Your task to perform on an android device: change notifications settings Image 0: 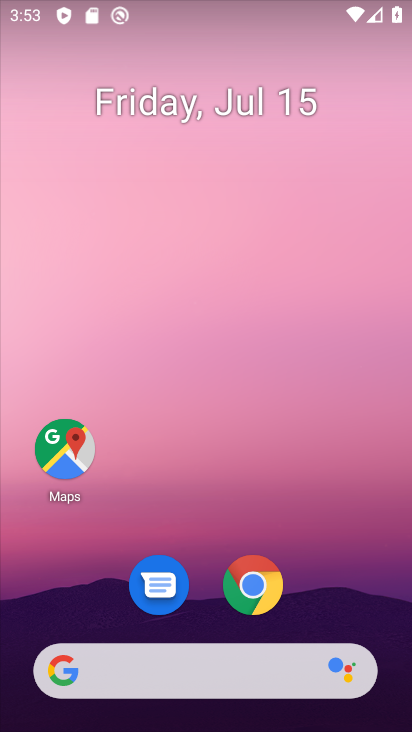
Step 0: drag from (298, 538) to (279, 11)
Your task to perform on an android device: change notifications settings Image 1: 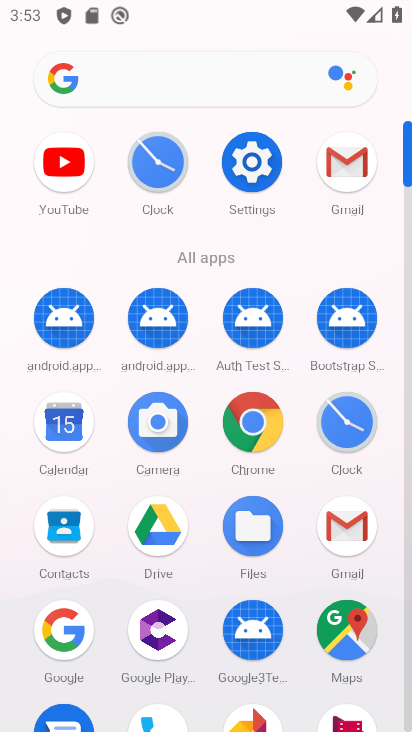
Step 1: click (248, 166)
Your task to perform on an android device: change notifications settings Image 2: 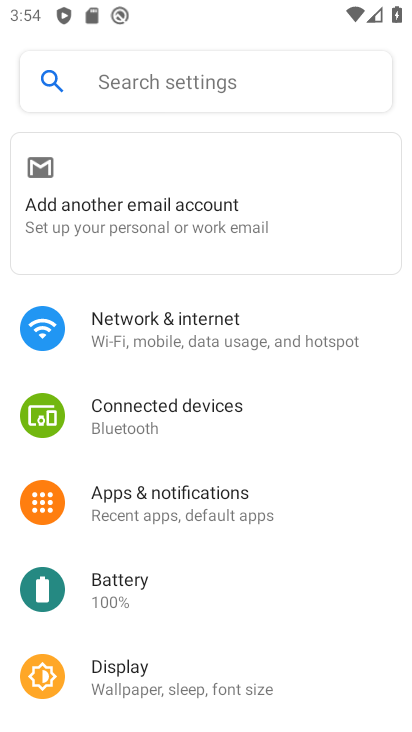
Step 2: click (229, 332)
Your task to perform on an android device: change notifications settings Image 3: 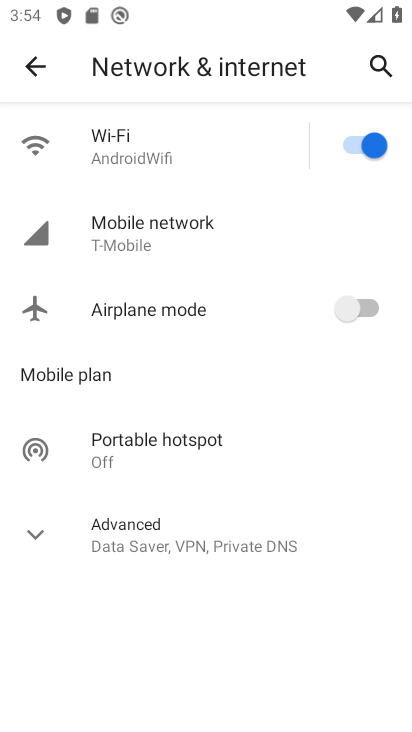
Step 3: click (38, 67)
Your task to perform on an android device: change notifications settings Image 4: 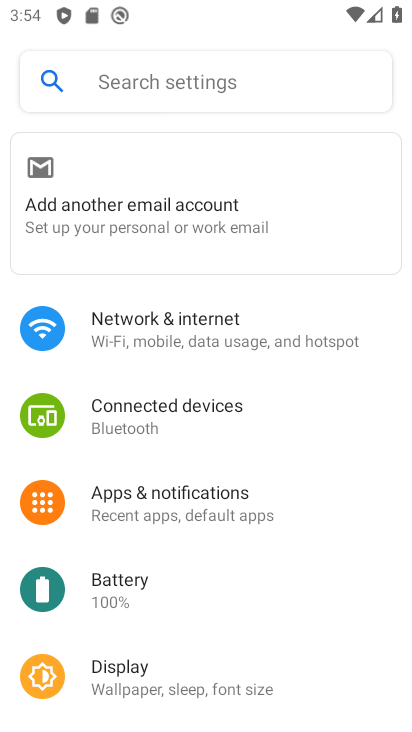
Step 4: click (195, 506)
Your task to perform on an android device: change notifications settings Image 5: 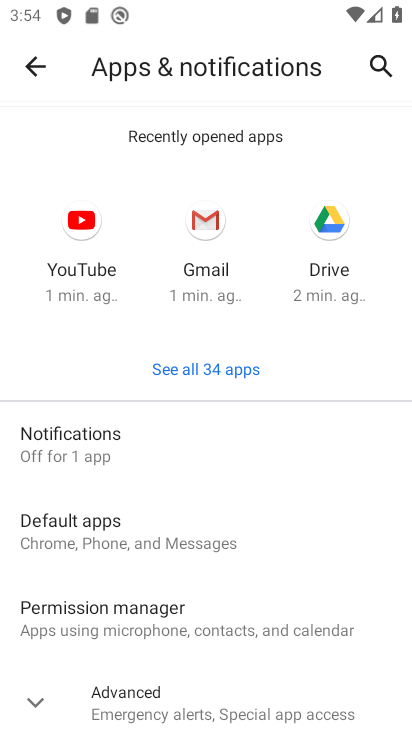
Step 5: drag from (213, 558) to (236, 277)
Your task to perform on an android device: change notifications settings Image 6: 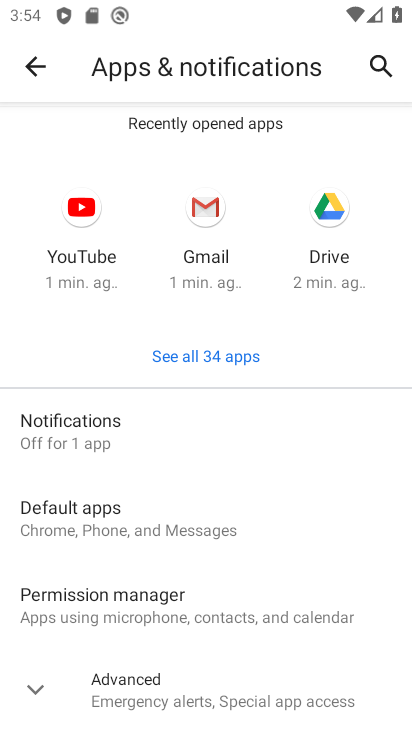
Step 6: click (95, 435)
Your task to perform on an android device: change notifications settings Image 7: 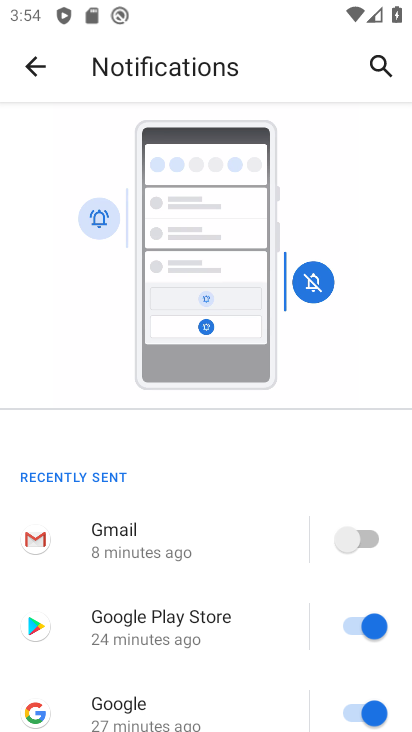
Step 7: drag from (245, 624) to (248, 280)
Your task to perform on an android device: change notifications settings Image 8: 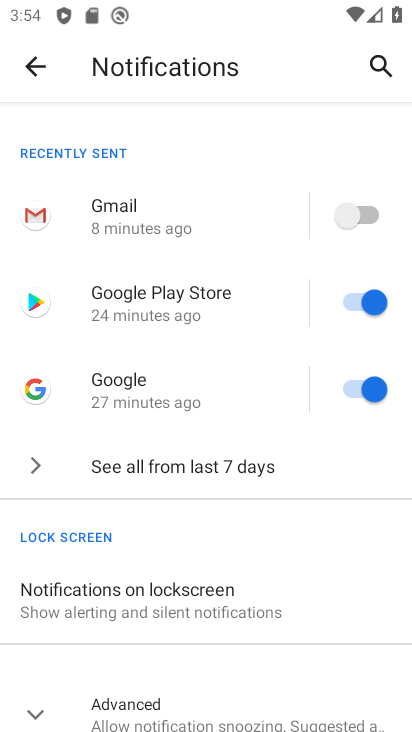
Step 8: click (218, 461)
Your task to perform on an android device: change notifications settings Image 9: 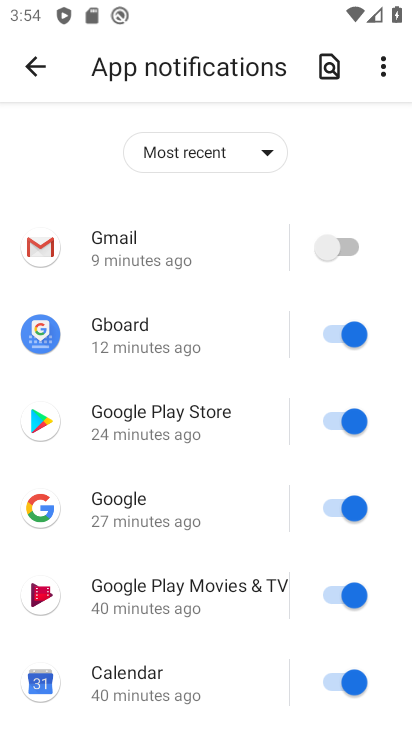
Step 9: click (351, 244)
Your task to perform on an android device: change notifications settings Image 10: 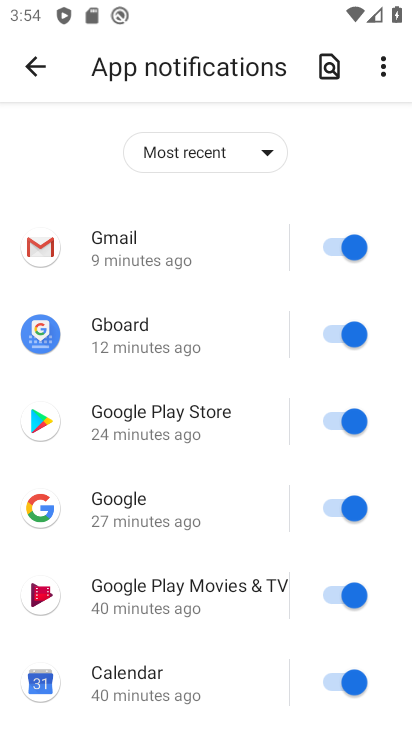
Step 10: click (336, 335)
Your task to perform on an android device: change notifications settings Image 11: 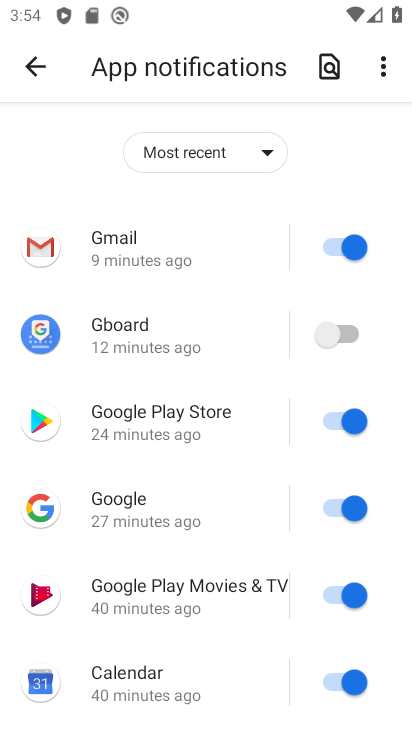
Step 11: click (342, 417)
Your task to perform on an android device: change notifications settings Image 12: 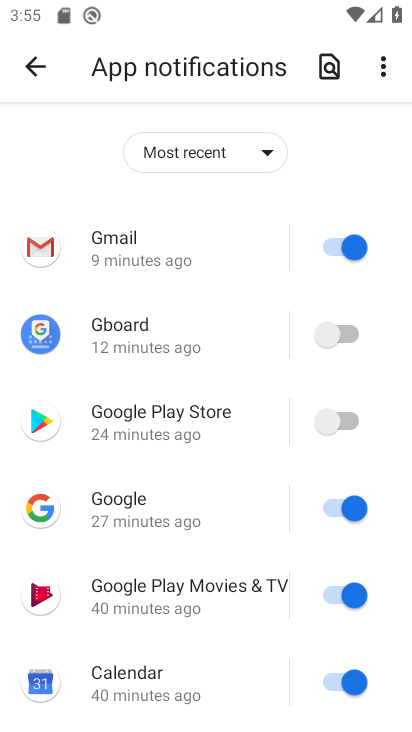
Step 12: click (344, 510)
Your task to perform on an android device: change notifications settings Image 13: 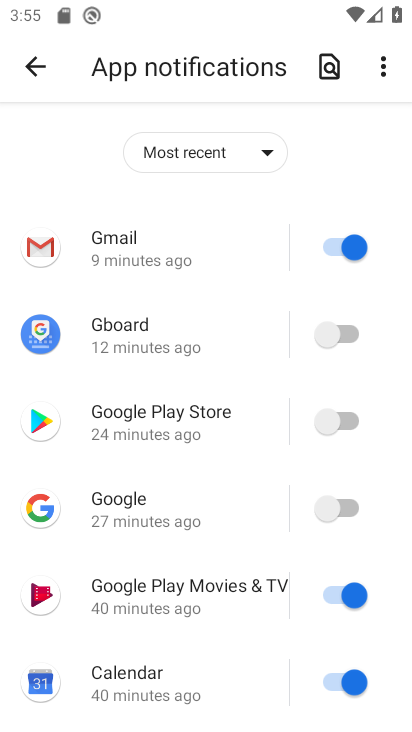
Step 13: click (340, 590)
Your task to perform on an android device: change notifications settings Image 14: 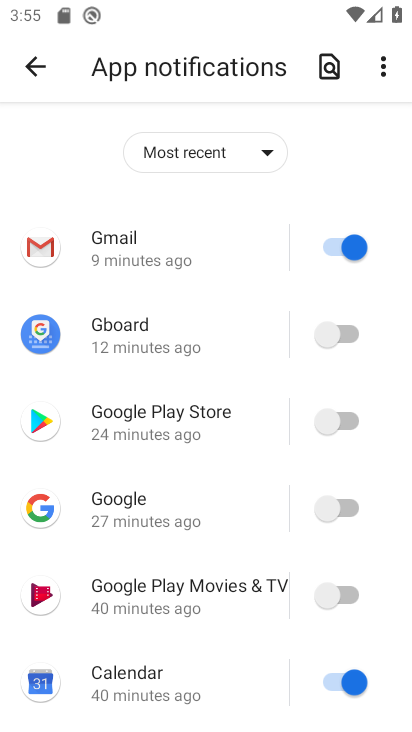
Step 14: click (338, 683)
Your task to perform on an android device: change notifications settings Image 15: 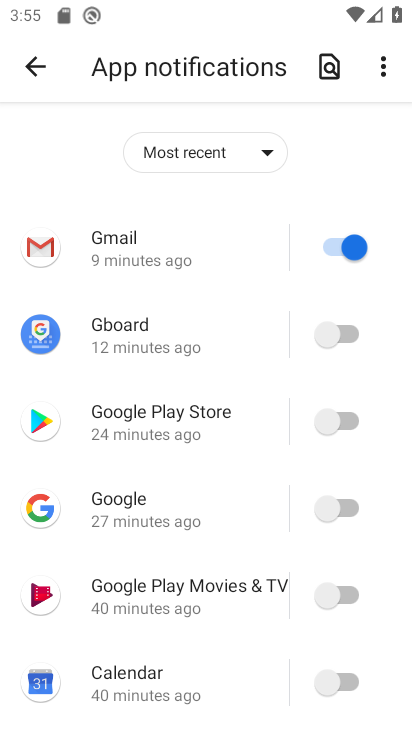
Step 15: drag from (231, 625) to (228, 143)
Your task to perform on an android device: change notifications settings Image 16: 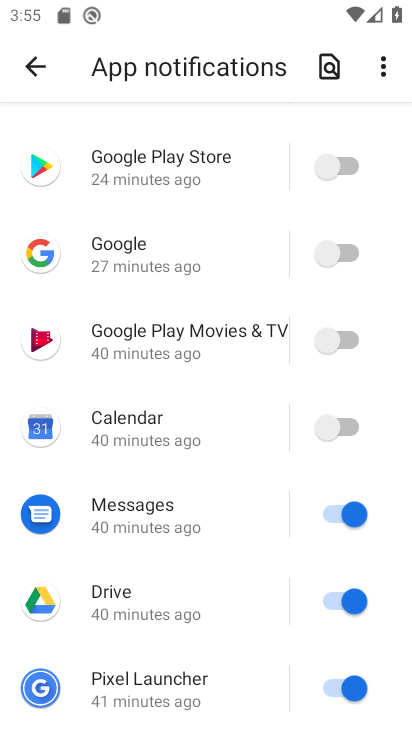
Step 16: click (341, 507)
Your task to perform on an android device: change notifications settings Image 17: 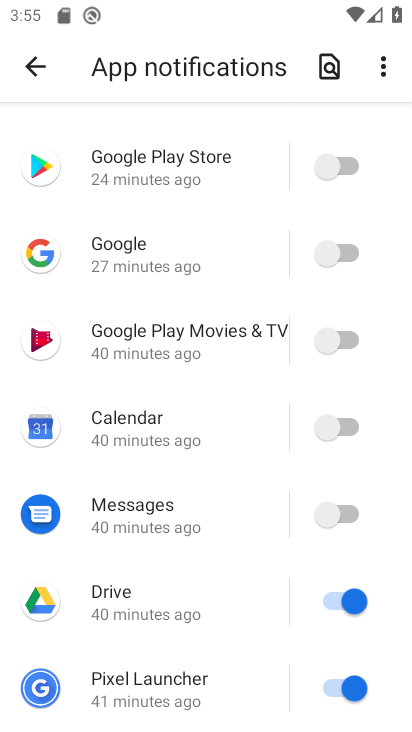
Step 17: click (347, 609)
Your task to perform on an android device: change notifications settings Image 18: 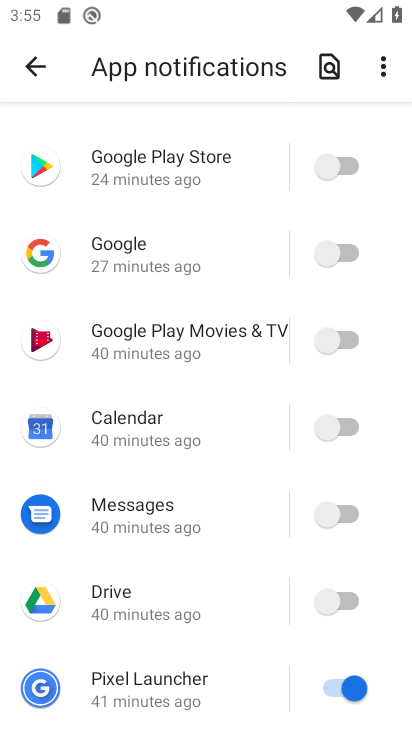
Step 18: click (347, 688)
Your task to perform on an android device: change notifications settings Image 19: 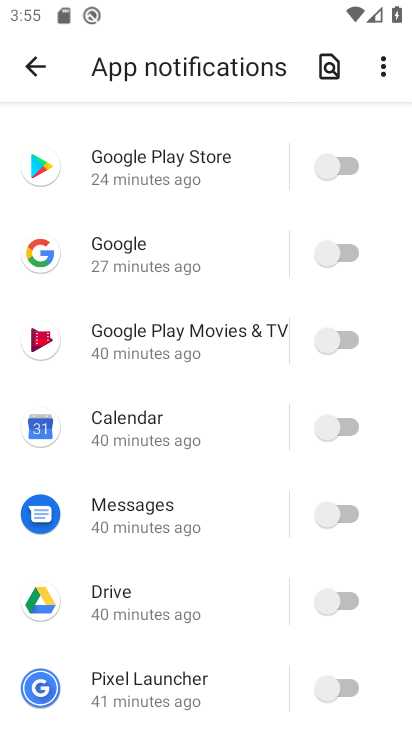
Step 19: task complete